Your task to perform on an android device: toggle improve location accuracy Image 0: 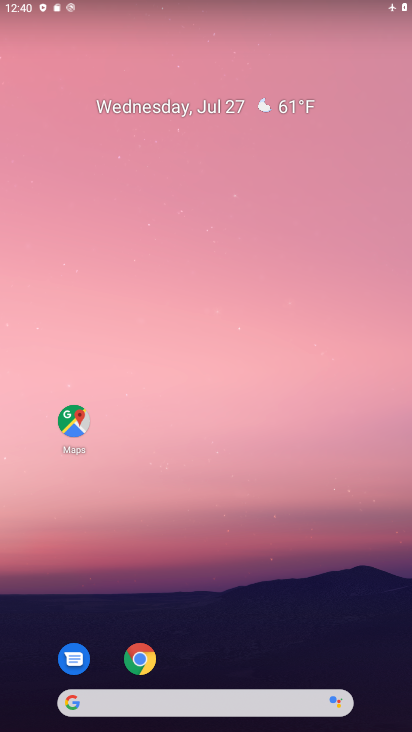
Step 0: drag from (212, 611) to (166, 179)
Your task to perform on an android device: toggle improve location accuracy Image 1: 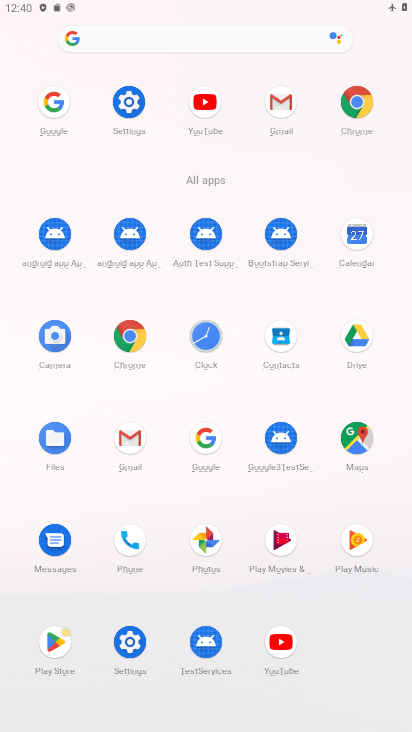
Step 1: click (108, 113)
Your task to perform on an android device: toggle improve location accuracy Image 2: 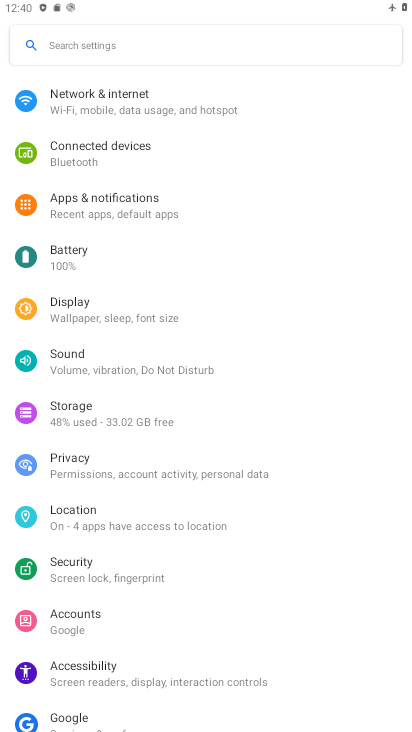
Step 2: click (113, 513)
Your task to perform on an android device: toggle improve location accuracy Image 3: 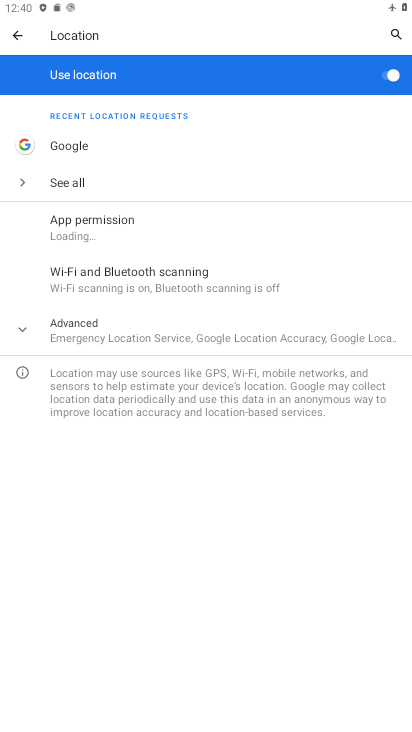
Step 3: click (155, 338)
Your task to perform on an android device: toggle improve location accuracy Image 4: 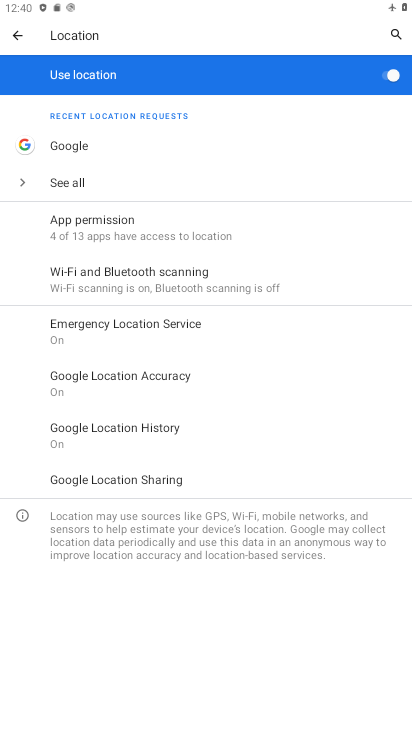
Step 4: click (145, 382)
Your task to perform on an android device: toggle improve location accuracy Image 5: 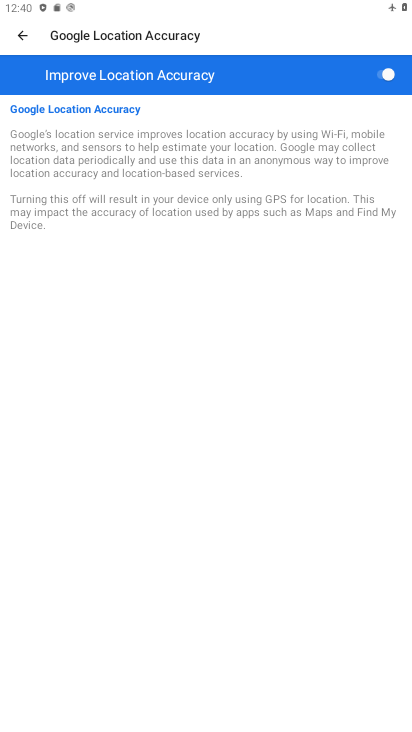
Step 5: click (385, 73)
Your task to perform on an android device: toggle improve location accuracy Image 6: 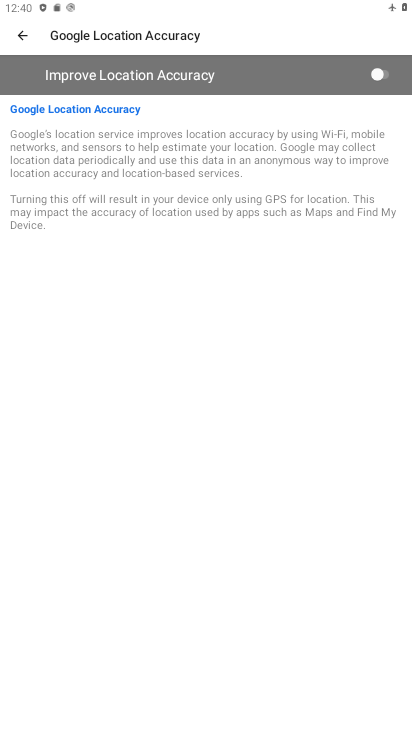
Step 6: task complete